Your task to perform on an android device: empty trash in the gmail app Image 0: 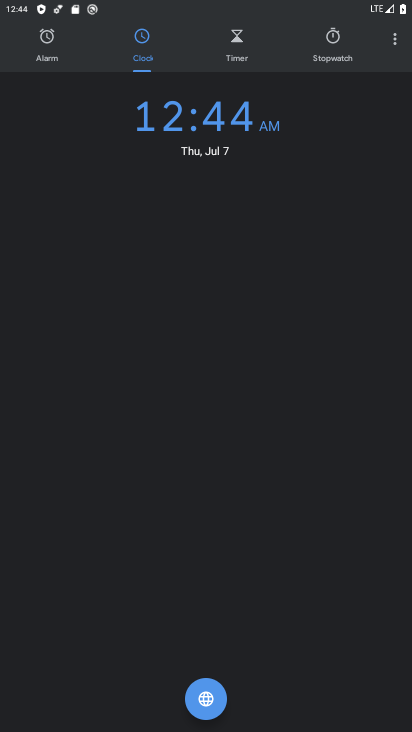
Step 0: press home button
Your task to perform on an android device: empty trash in the gmail app Image 1: 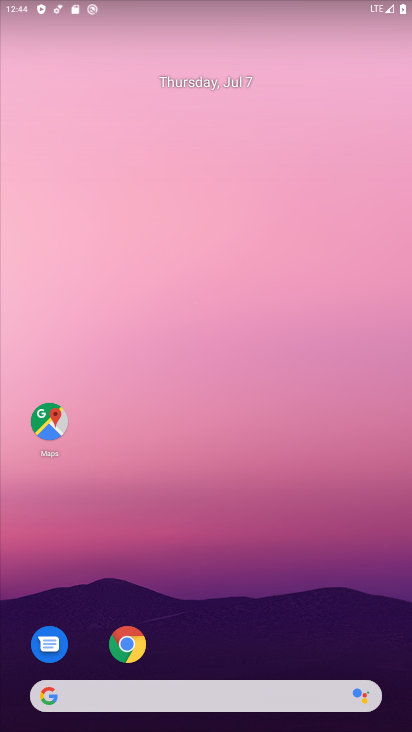
Step 1: drag from (386, 601) to (334, 63)
Your task to perform on an android device: empty trash in the gmail app Image 2: 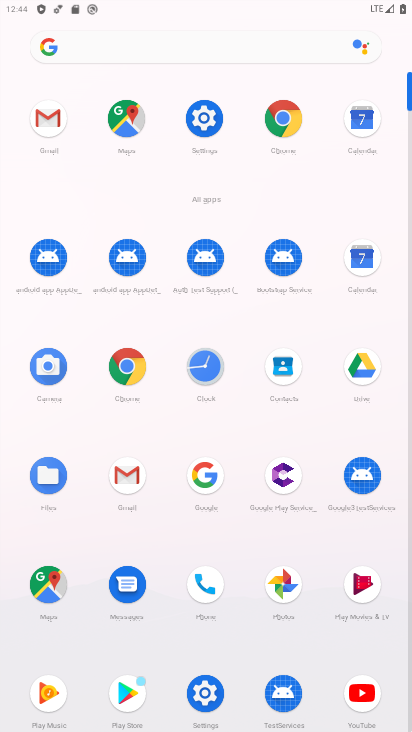
Step 2: click (31, 123)
Your task to perform on an android device: empty trash in the gmail app Image 3: 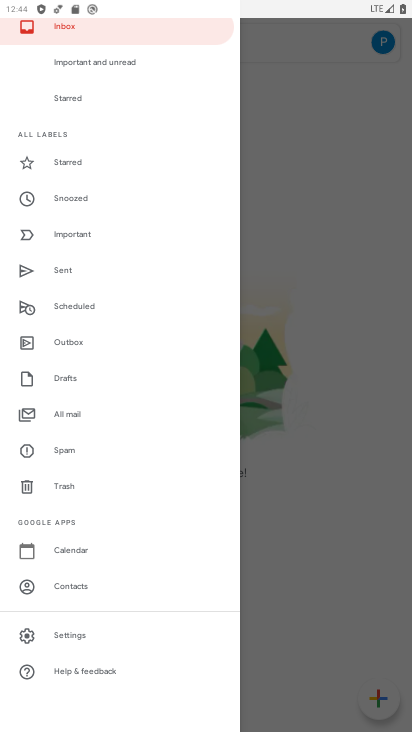
Step 3: click (53, 484)
Your task to perform on an android device: empty trash in the gmail app Image 4: 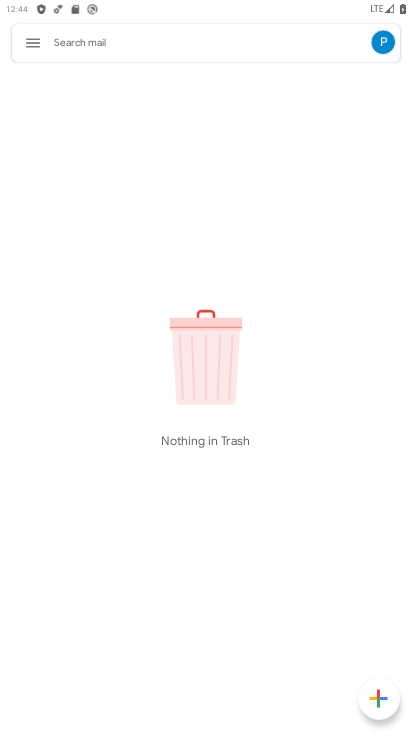
Step 4: task complete